Your task to perform on an android device: Search for a dining table on Crate & Barrel Image 0: 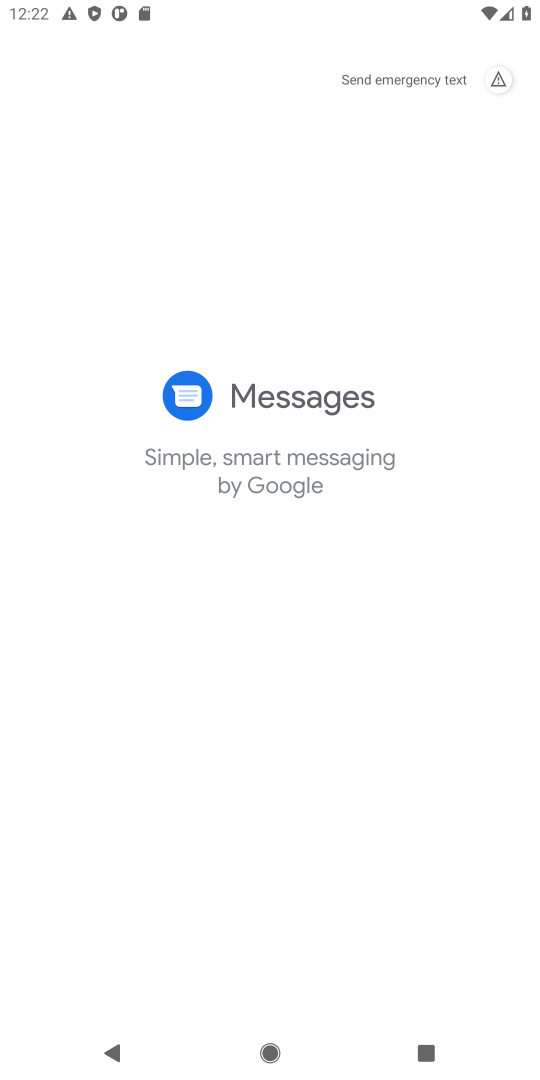
Step 0: press home button
Your task to perform on an android device: Search for a dining table on Crate & Barrel Image 1: 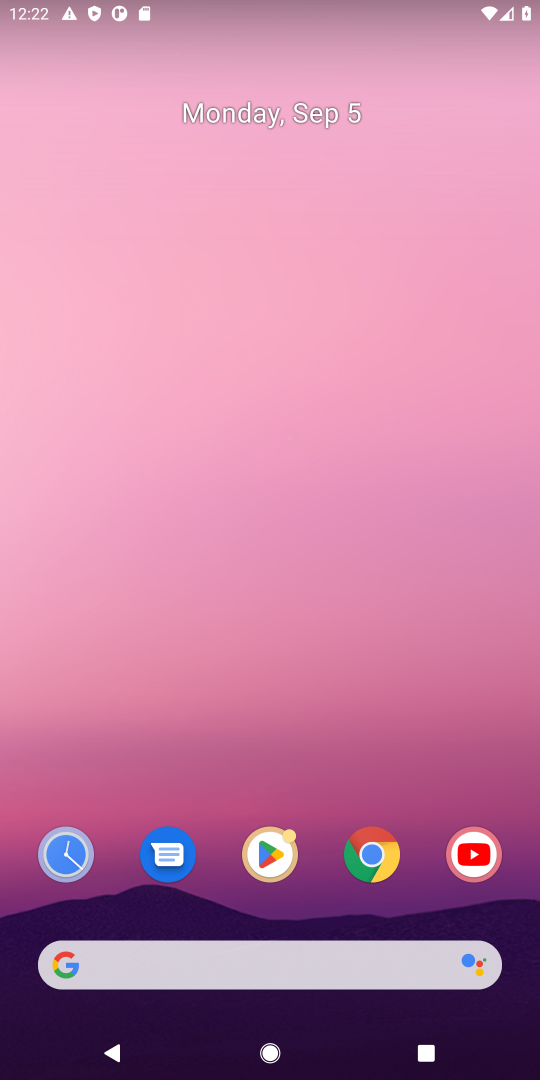
Step 1: click (310, 956)
Your task to perform on an android device: Search for a dining table on Crate & Barrel Image 2: 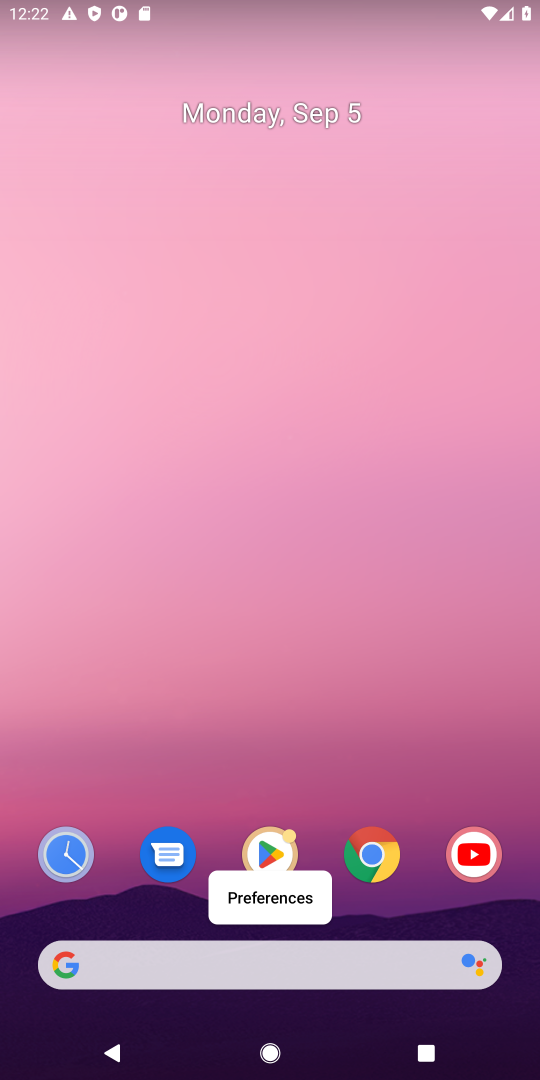
Step 2: click (143, 977)
Your task to perform on an android device: Search for a dining table on Crate & Barrel Image 3: 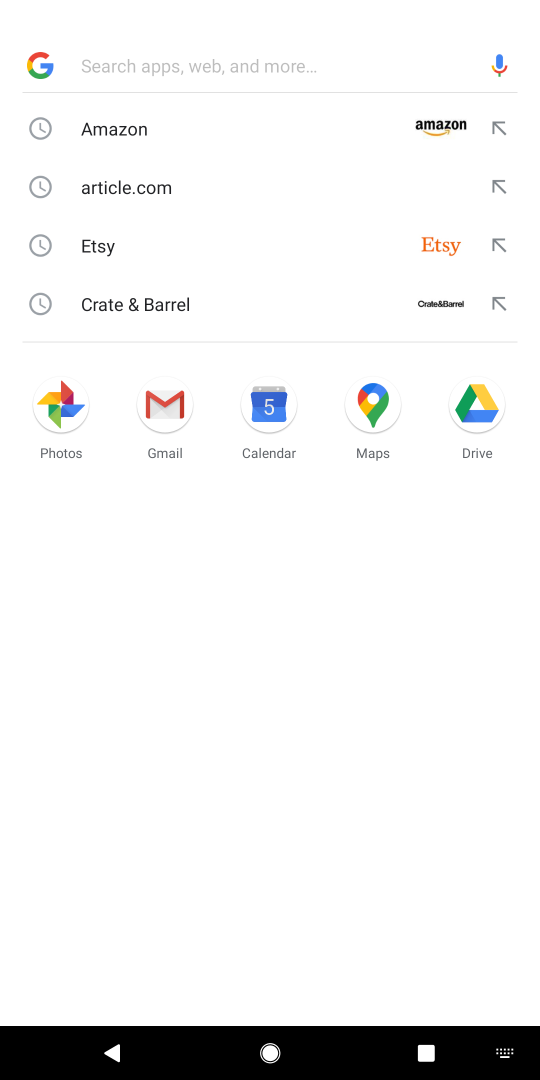
Step 3: type "crate barrel"
Your task to perform on an android device: Search for a dining table on Crate & Barrel Image 4: 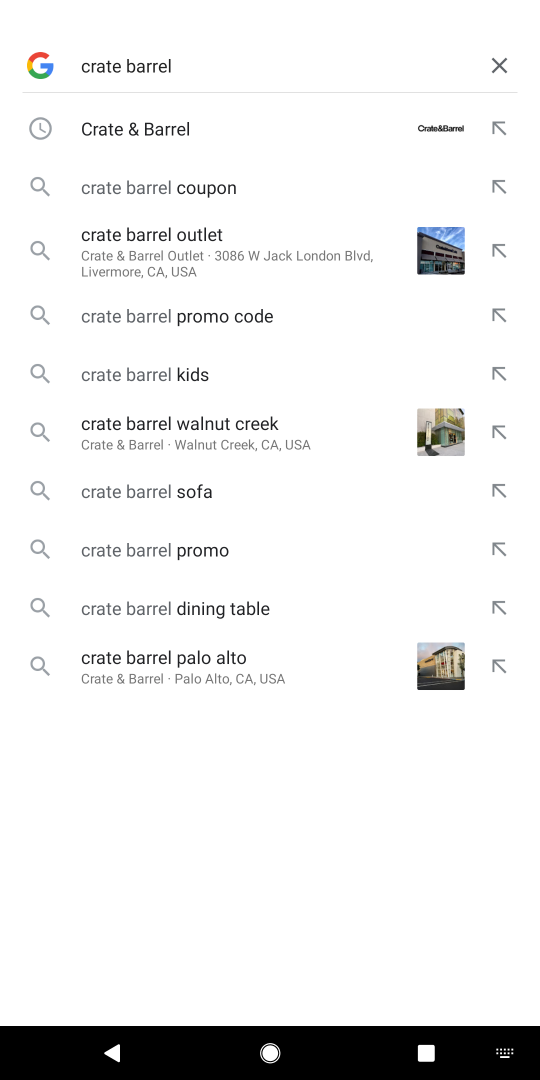
Step 4: press enter
Your task to perform on an android device: Search for a dining table on Crate & Barrel Image 5: 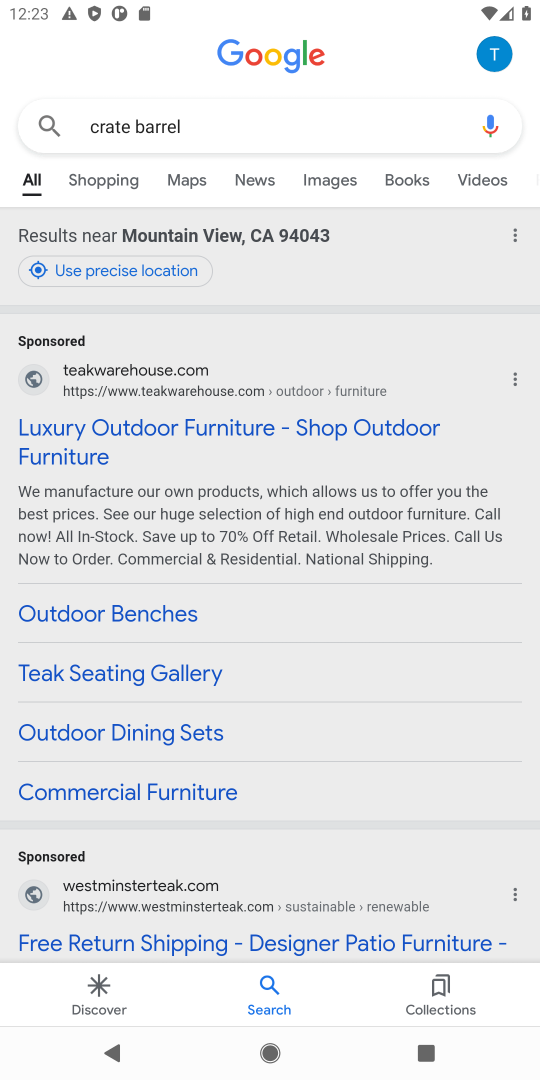
Step 5: drag from (356, 726) to (355, 361)
Your task to perform on an android device: Search for a dining table on Crate & Barrel Image 6: 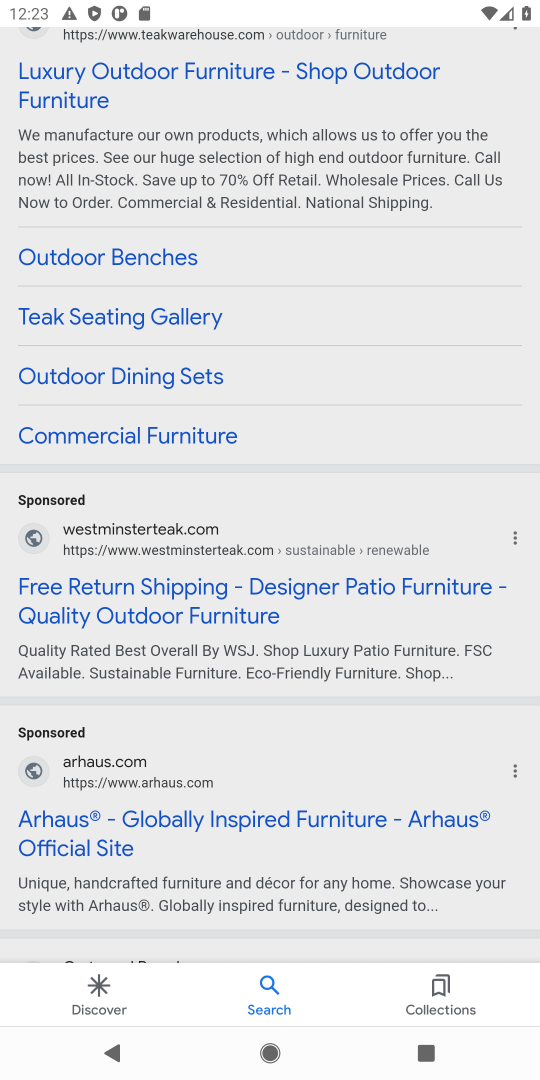
Step 6: drag from (329, 832) to (332, 284)
Your task to perform on an android device: Search for a dining table on Crate & Barrel Image 7: 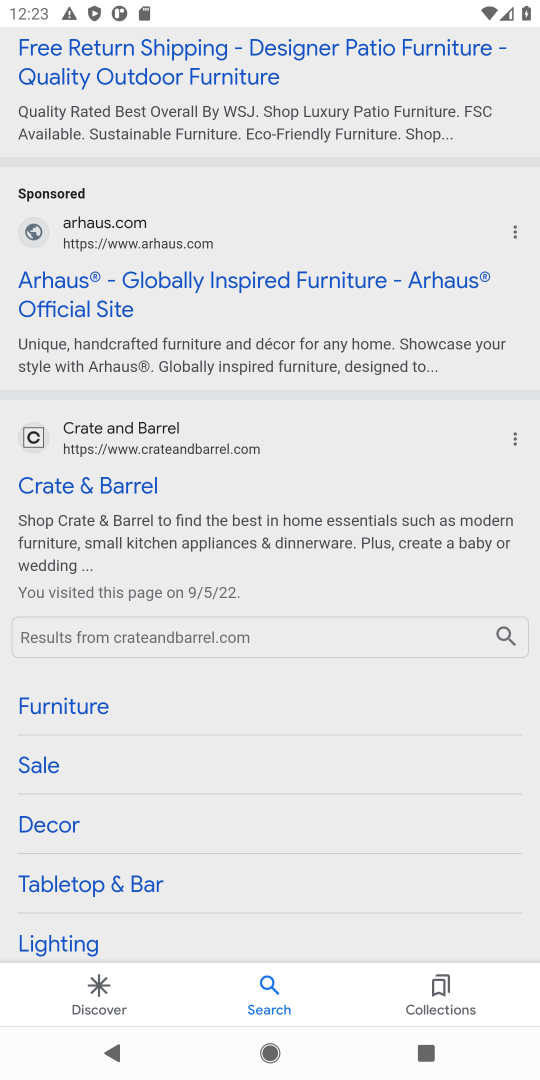
Step 7: click (107, 482)
Your task to perform on an android device: Search for a dining table on Crate & Barrel Image 8: 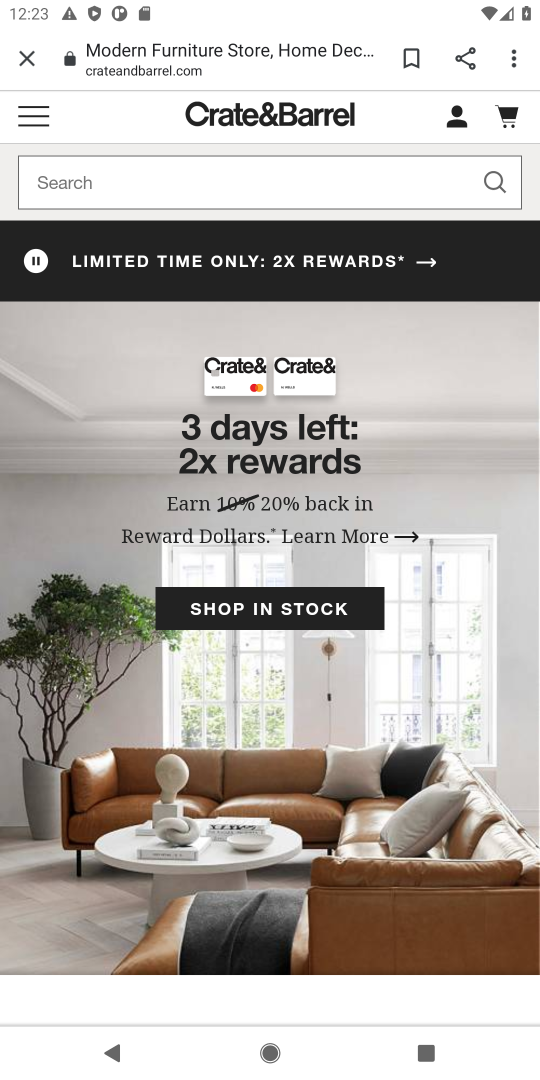
Step 8: click (98, 185)
Your task to perform on an android device: Search for a dining table on Crate & Barrel Image 9: 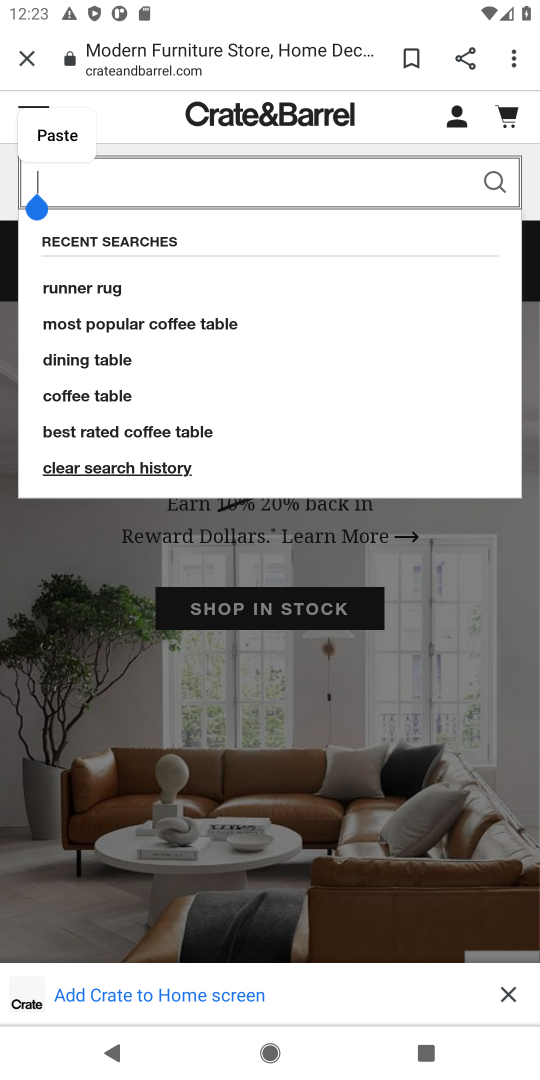
Step 9: type "dining tables"
Your task to perform on an android device: Search for a dining table on Crate & Barrel Image 10: 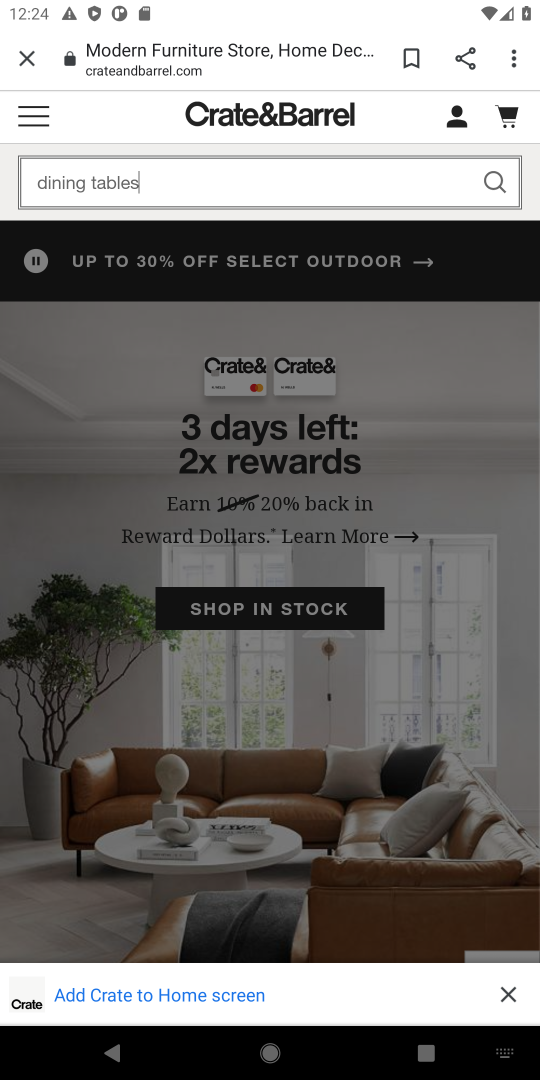
Step 10: press enter
Your task to perform on an android device: Search for a dining table on Crate & Barrel Image 11: 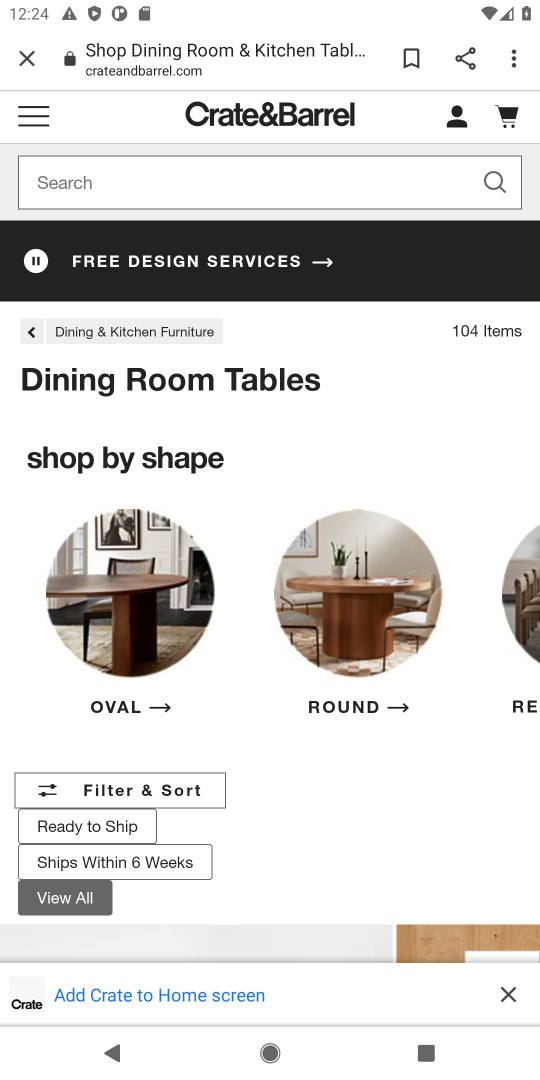
Step 11: task complete